Your task to perform on an android device: turn off airplane mode Image 0: 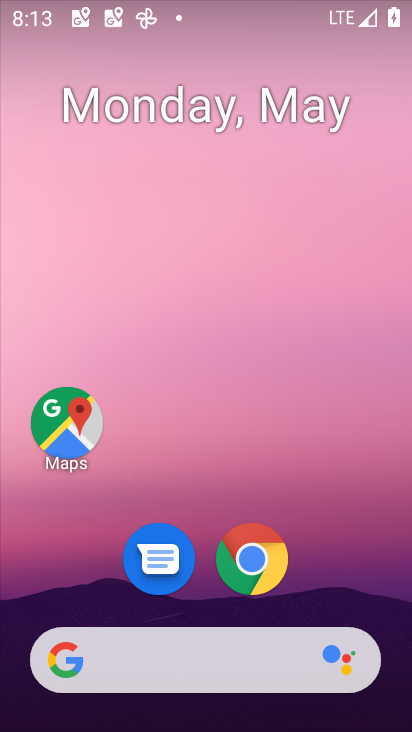
Step 0: drag from (377, 662) to (279, 118)
Your task to perform on an android device: turn off airplane mode Image 1: 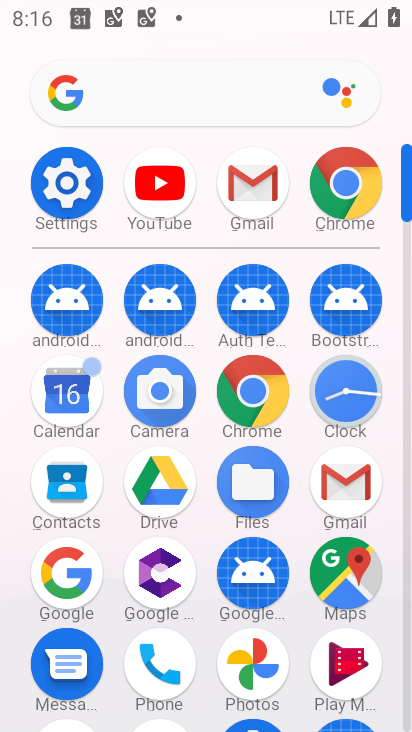
Step 1: task complete